Your task to perform on an android device: Go to Yahoo.com Image 0: 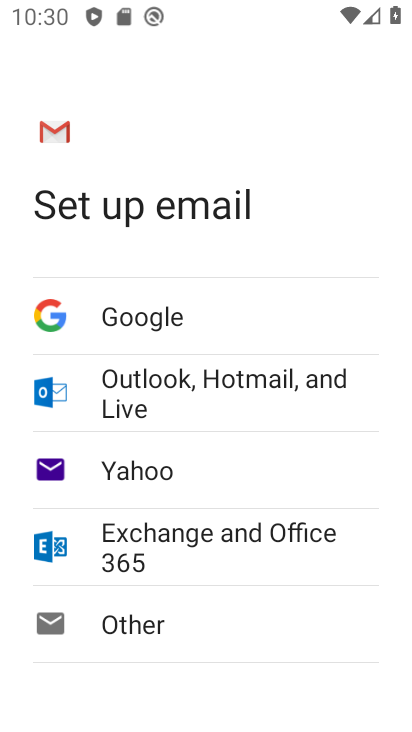
Step 0: press home button
Your task to perform on an android device: Go to Yahoo.com Image 1: 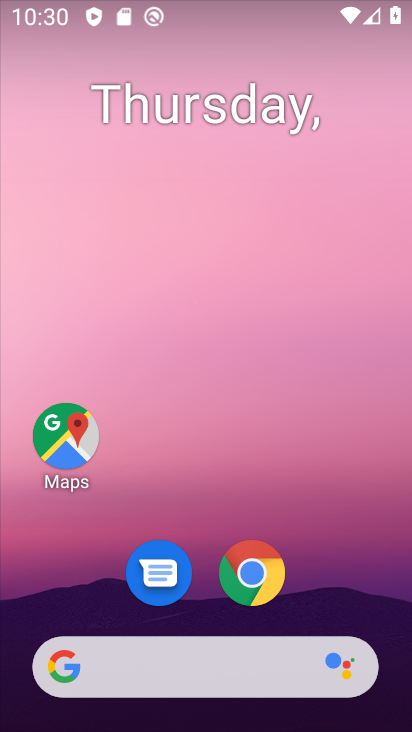
Step 1: click (255, 573)
Your task to perform on an android device: Go to Yahoo.com Image 2: 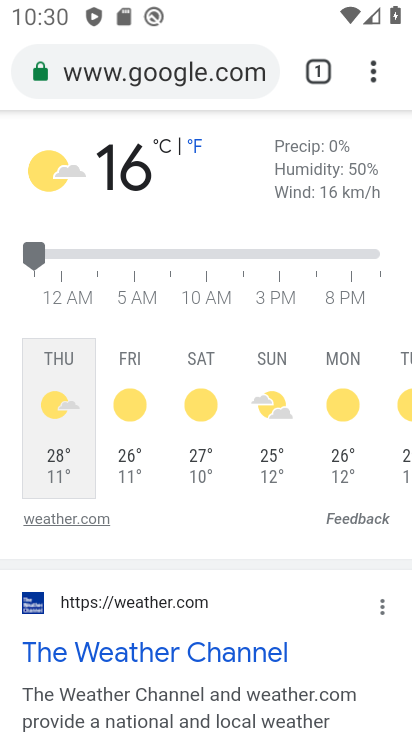
Step 2: click (169, 44)
Your task to perform on an android device: Go to Yahoo.com Image 3: 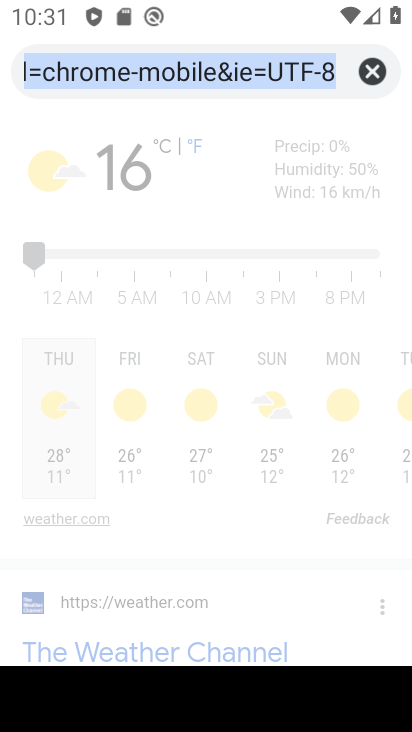
Step 3: type "yahoo.com"
Your task to perform on an android device: Go to Yahoo.com Image 4: 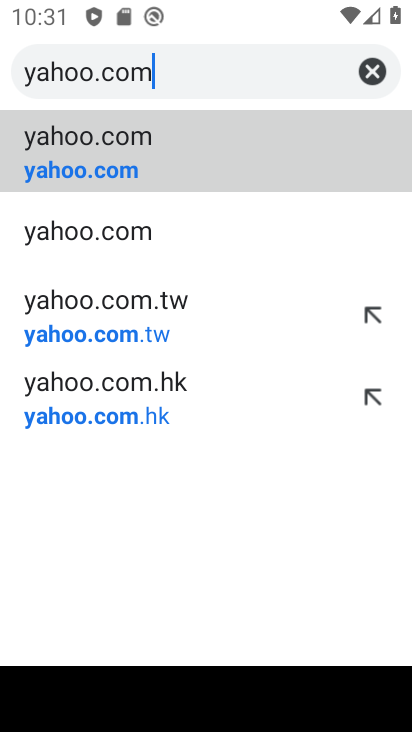
Step 4: click (77, 172)
Your task to perform on an android device: Go to Yahoo.com Image 5: 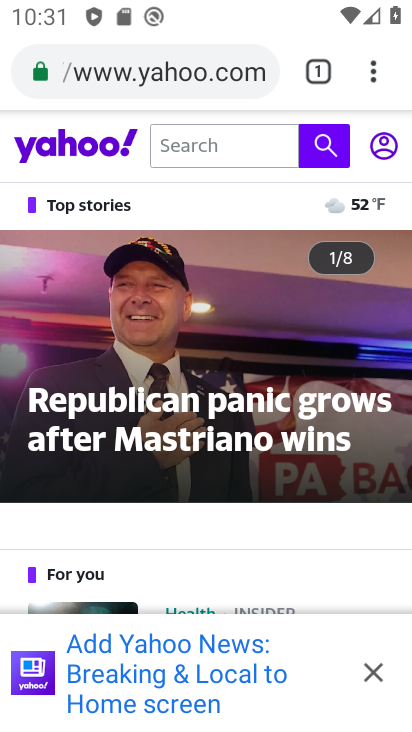
Step 5: task complete